Your task to perform on an android device: turn off location Image 0: 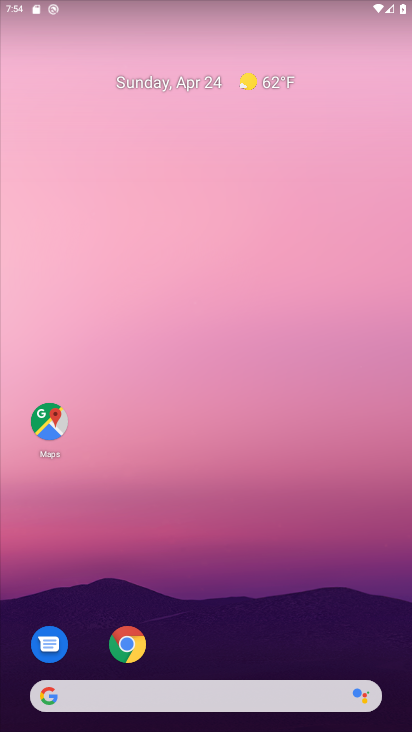
Step 0: drag from (198, 655) to (219, 67)
Your task to perform on an android device: turn off location Image 1: 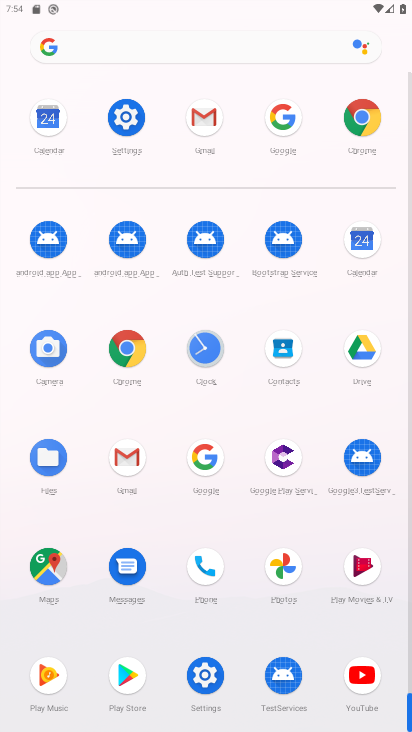
Step 1: click (125, 110)
Your task to perform on an android device: turn off location Image 2: 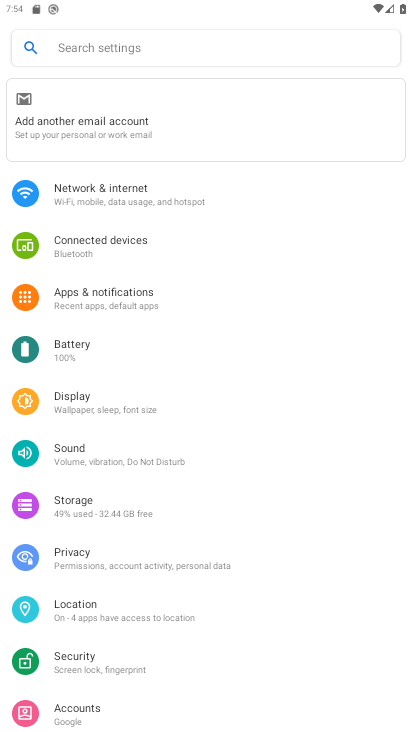
Step 2: click (104, 603)
Your task to perform on an android device: turn off location Image 3: 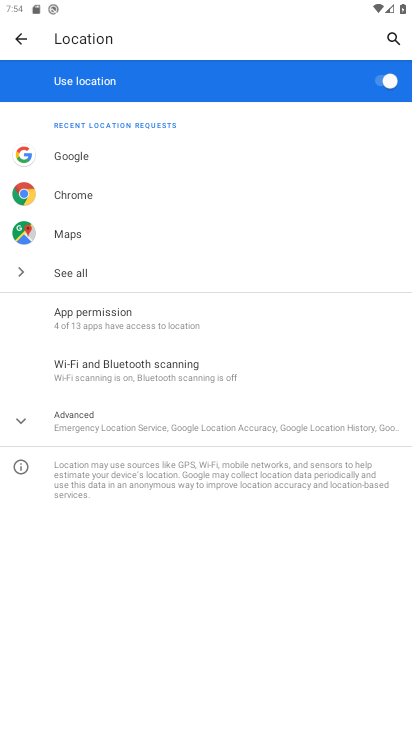
Step 3: click (380, 72)
Your task to perform on an android device: turn off location Image 4: 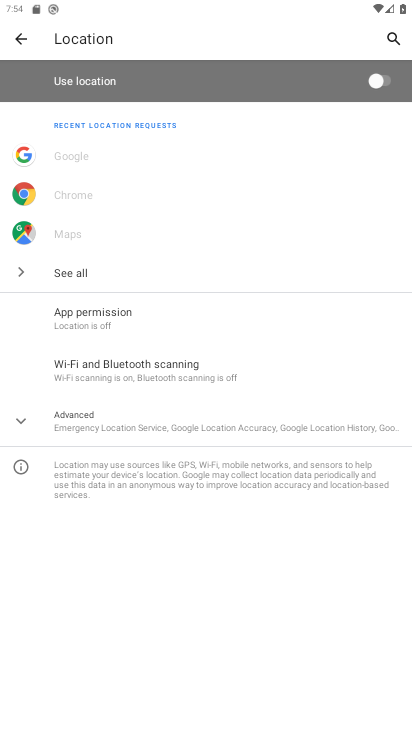
Step 4: task complete